Your task to perform on an android device: Open accessibility settings Image 0: 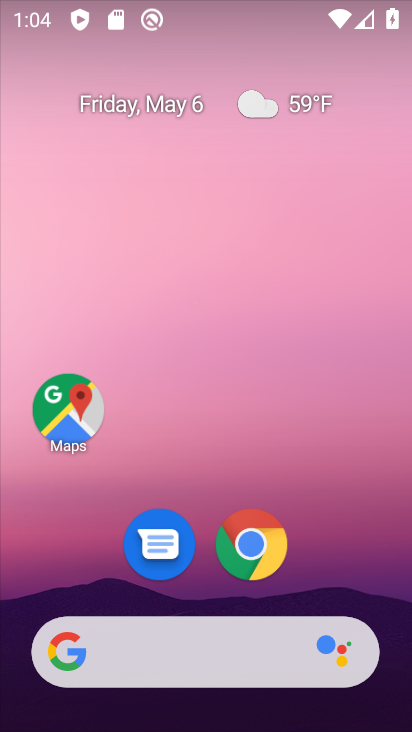
Step 0: drag from (84, 614) to (250, 89)
Your task to perform on an android device: Open accessibility settings Image 1: 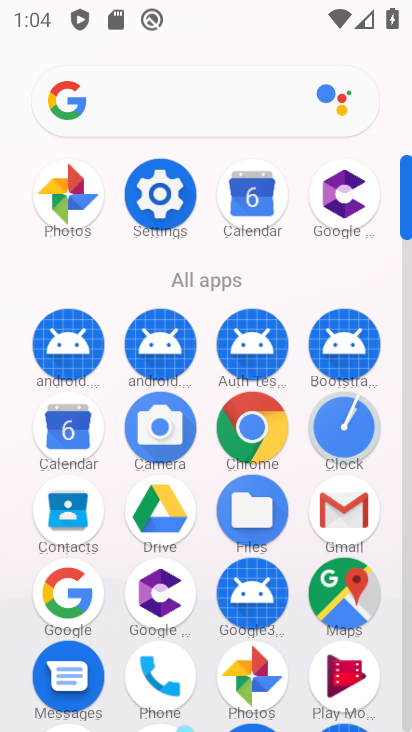
Step 1: drag from (147, 637) to (237, 384)
Your task to perform on an android device: Open accessibility settings Image 2: 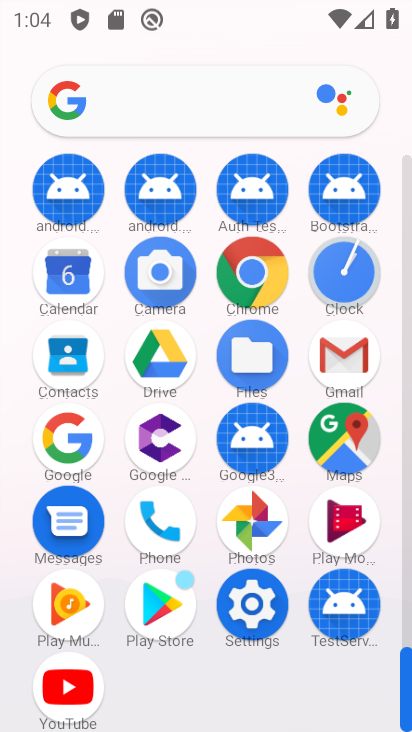
Step 2: click (247, 607)
Your task to perform on an android device: Open accessibility settings Image 3: 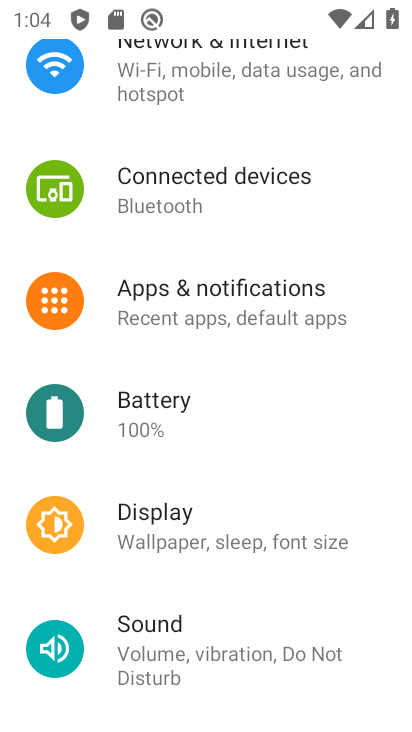
Step 3: drag from (156, 656) to (350, 85)
Your task to perform on an android device: Open accessibility settings Image 4: 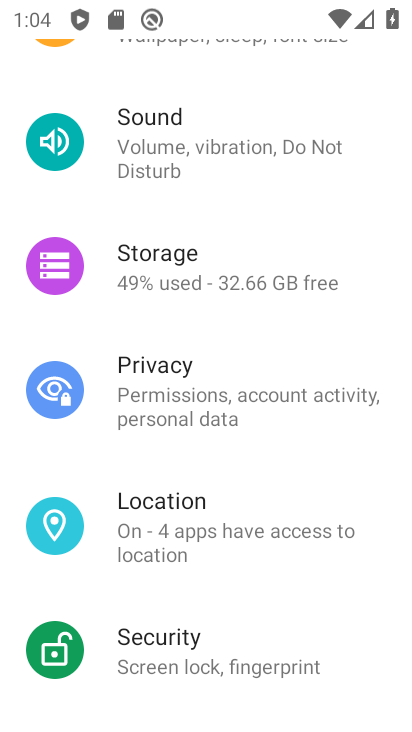
Step 4: drag from (138, 555) to (277, 74)
Your task to perform on an android device: Open accessibility settings Image 5: 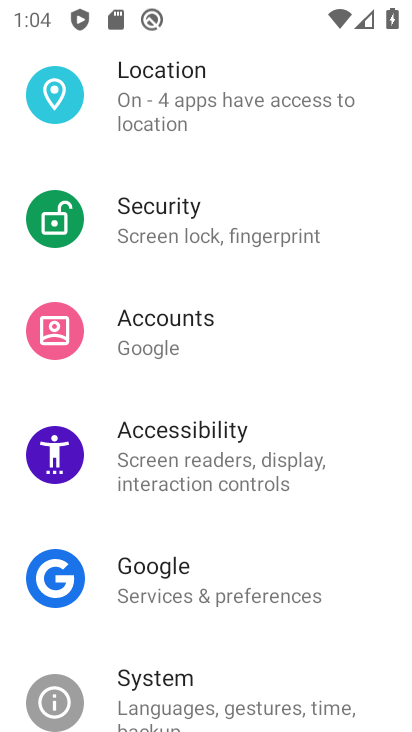
Step 5: drag from (153, 663) to (298, 150)
Your task to perform on an android device: Open accessibility settings Image 6: 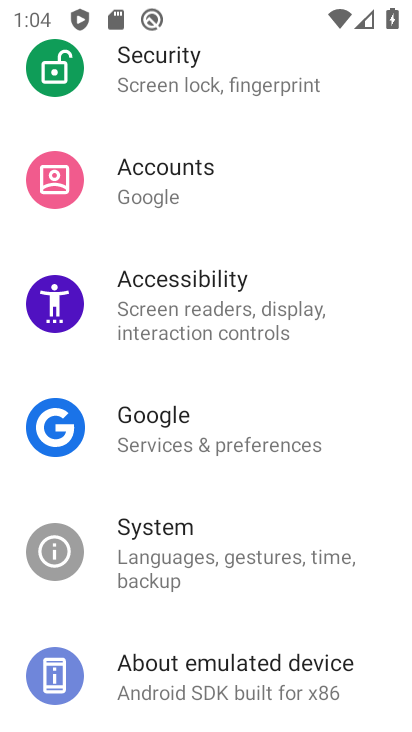
Step 6: drag from (175, 596) to (293, 179)
Your task to perform on an android device: Open accessibility settings Image 7: 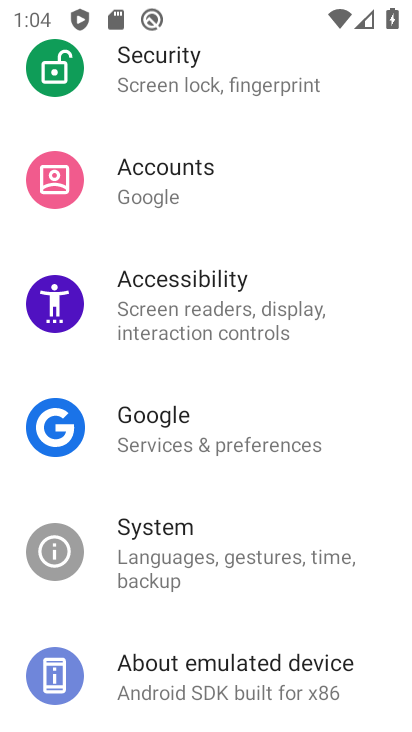
Step 7: click (203, 304)
Your task to perform on an android device: Open accessibility settings Image 8: 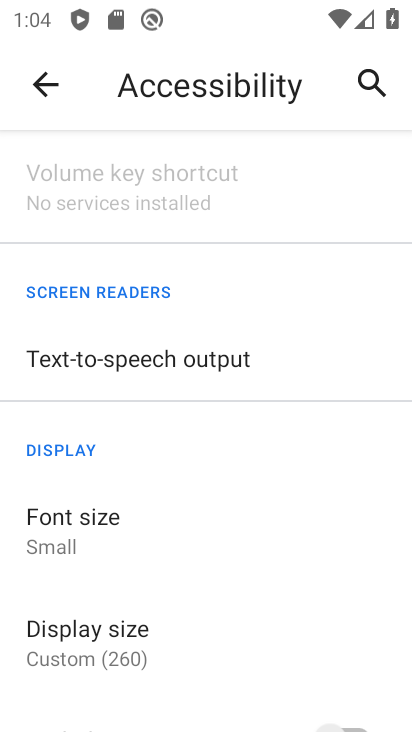
Step 8: task complete